Your task to perform on an android device: change the clock display to digital Image 0: 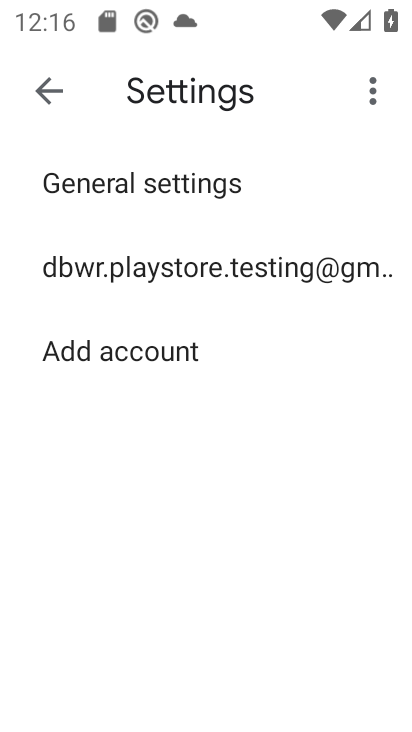
Step 0: press home button
Your task to perform on an android device: change the clock display to digital Image 1: 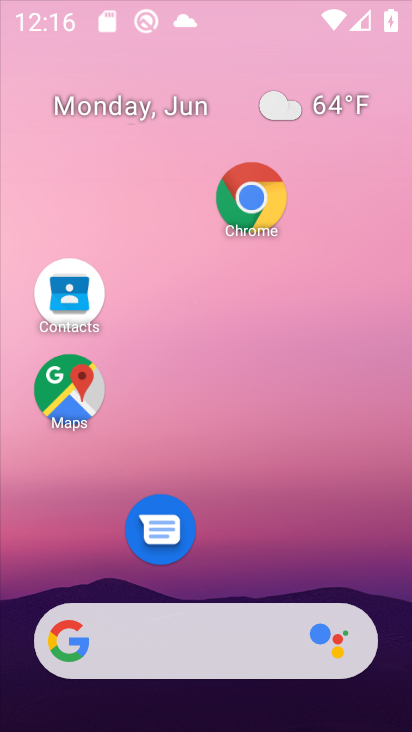
Step 1: drag from (247, 567) to (271, 10)
Your task to perform on an android device: change the clock display to digital Image 2: 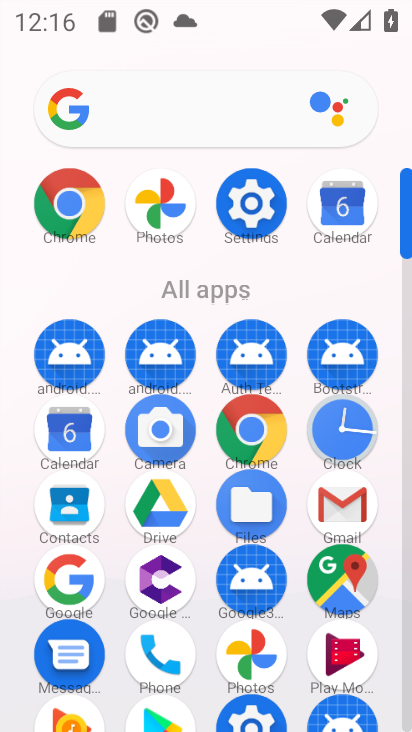
Step 2: click (342, 440)
Your task to perform on an android device: change the clock display to digital Image 3: 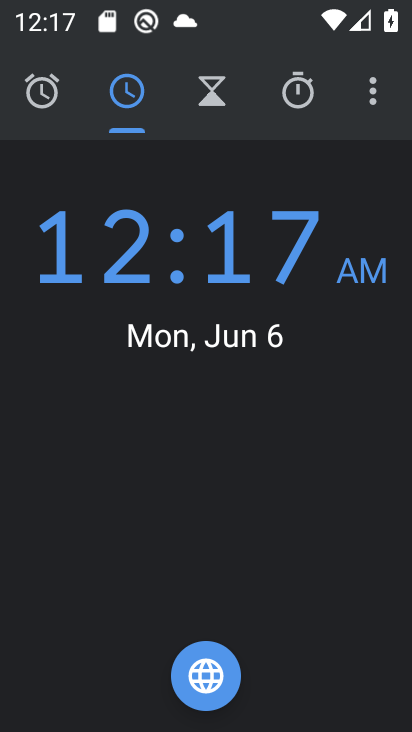
Step 3: click (363, 97)
Your task to perform on an android device: change the clock display to digital Image 4: 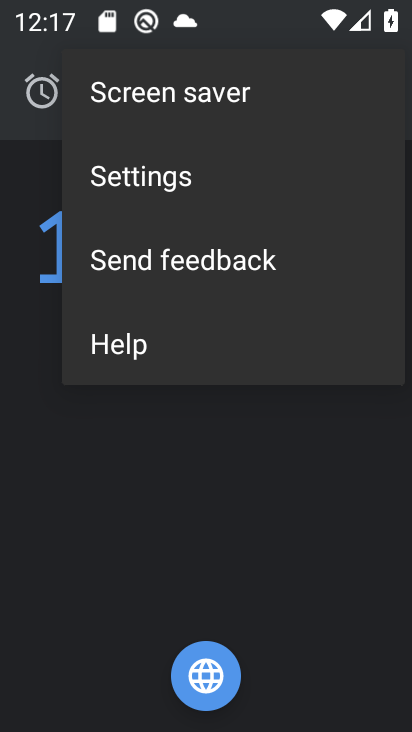
Step 4: click (317, 183)
Your task to perform on an android device: change the clock display to digital Image 5: 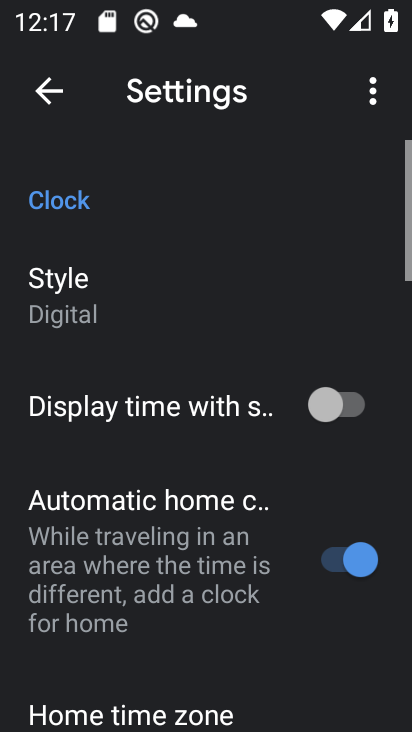
Step 5: click (81, 303)
Your task to perform on an android device: change the clock display to digital Image 6: 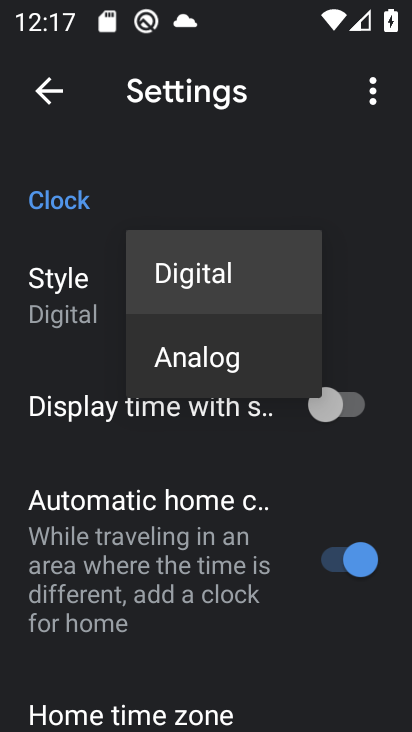
Step 6: click (221, 268)
Your task to perform on an android device: change the clock display to digital Image 7: 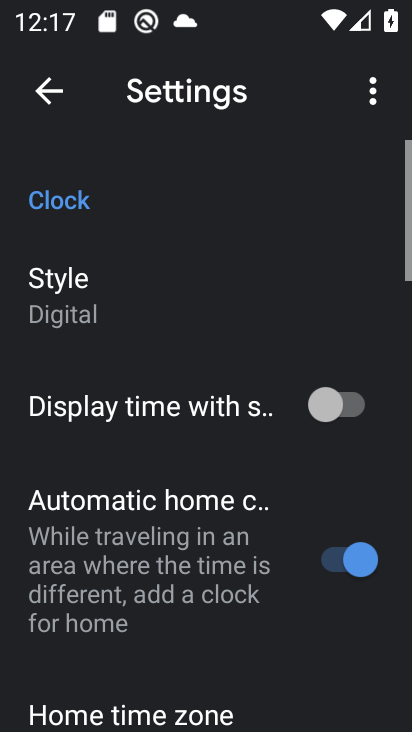
Step 7: task complete